Your task to perform on an android device: Search for the best rated TV on Target Image 0: 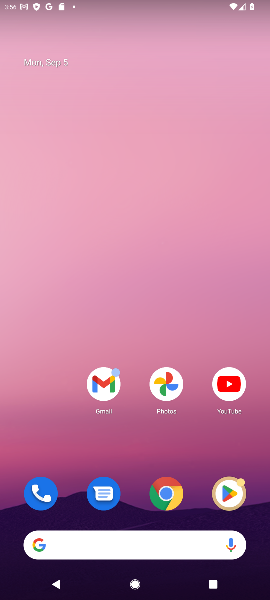
Step 0: drag from (153, 446) to (213, 67)
Your task to perform on an android device: Search for the best rated TV on Target Image 1: 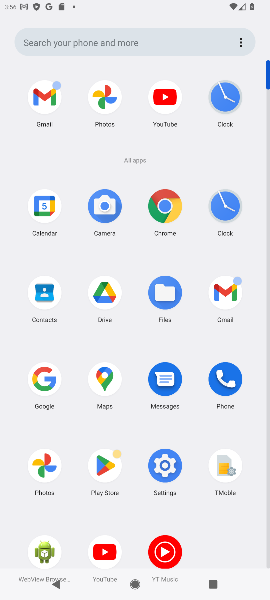
Step 1: click (164, 197)
Your task to perform on an android device: Search for the best rated TV on Target Image 2: 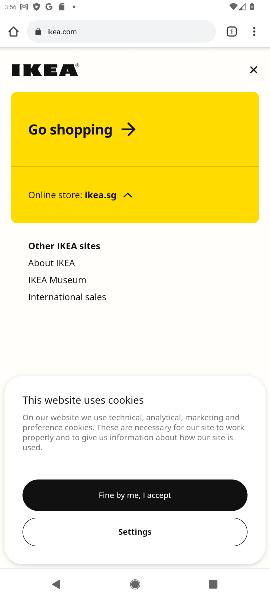
Step 2: click (118, 33)
Your task to perform on an android device: Search for the best rated TV on Target Image 3: 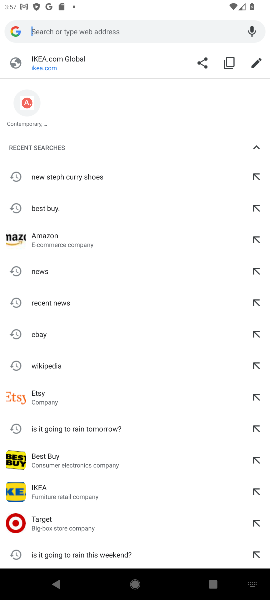
Step 3: type "Target"
Your task to perform on an android device: Search for the best rated TV on Target Image 4: 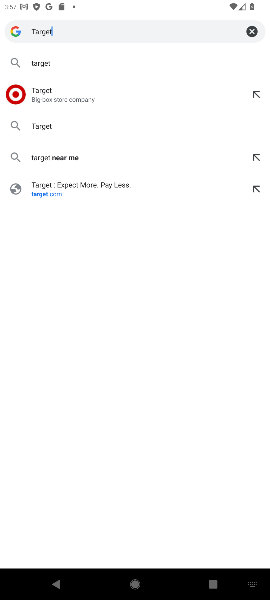
Step 4: click (38, 63)
Your task to perform on an android device: Search for the best rated TV on Target Image 5: 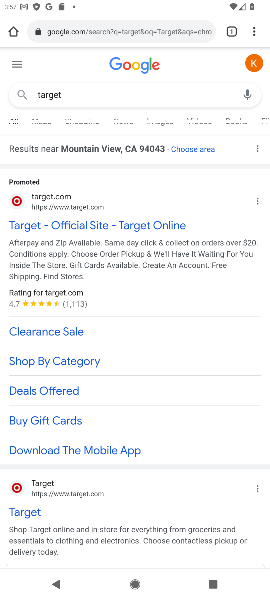
Step 5: click (68, 224)
Your task to perform on an android device: Search for the best rated TV on Target Image 6: 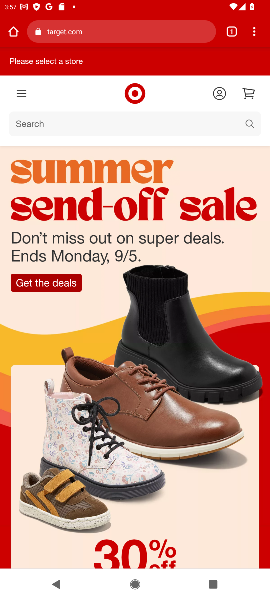
Step 6: click (46, 123)
Your task to perform on an android device: Search for the best rated TV on Target Image 7: 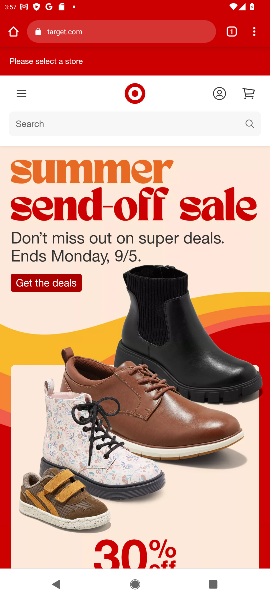
Step 7: click (46, 123)
Your task to perform on an android device: Search for the best rated TV on Target Image 8: 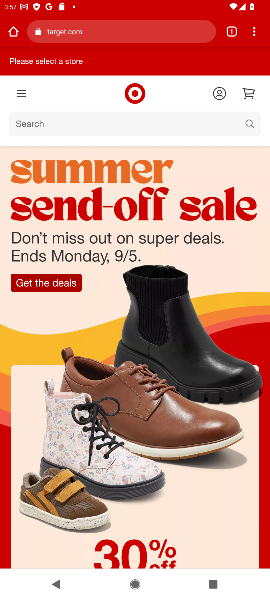
Step 8: click (42, 122)
Your task to perform on an android device: Search for the best rated TV on Target Image 9: 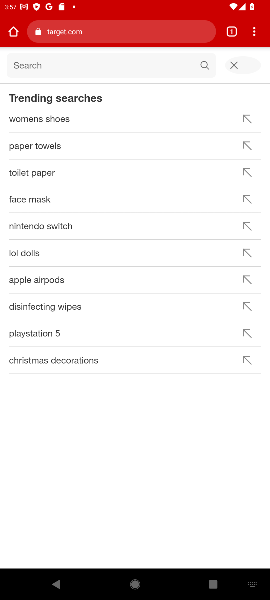
Step 9: type "best rated TV"
Your task to perform on an android device: Search for the best rated TV on Target Image 10: 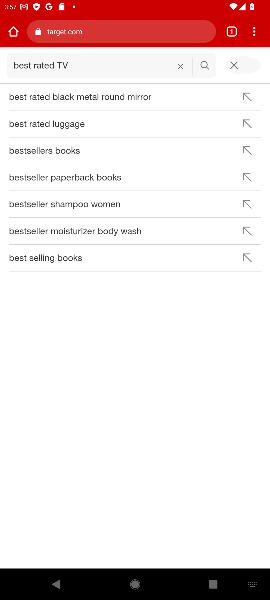
Step 10: click (47, 95)
Your task to perform on an android device: Search for the best rated TV on Target Image 11: 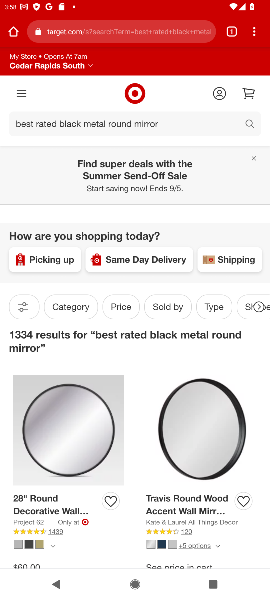
Step 11: task complete